Your task to perform on an android device: Open CNN.com Image 0: 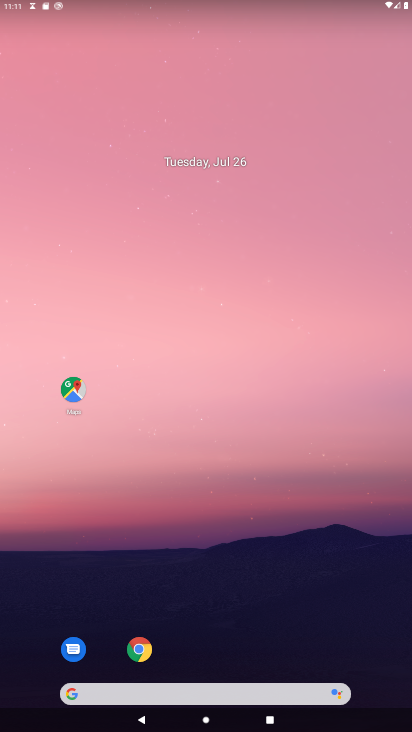
Step 0: click (144, 653)
Your task to perform on an android device: Open CNN.com Image 1: 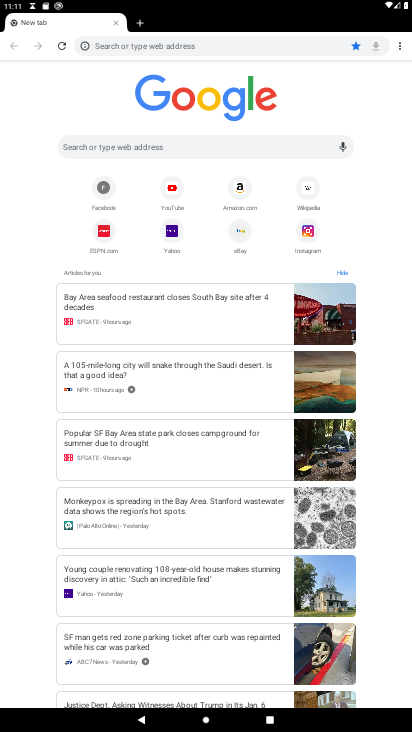
Step 1: click (250, 154)
Your task to perform on an android device: Open CNN.com Image 2: 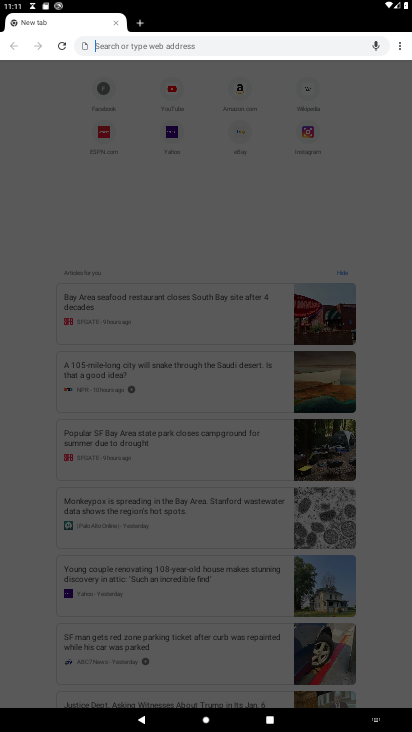
Step 2: type "CNN.com"
Your task to perform on an android device: Open CNN.com Image 3: 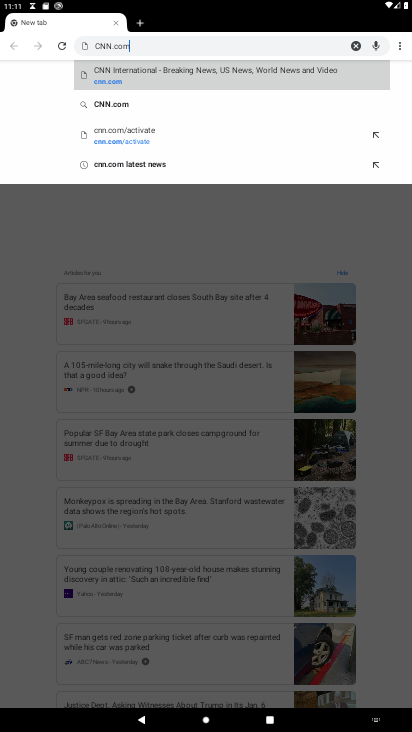
Step 3: click (108, 72)
Your task to perform on an android device: Open CNN.com Image 4: 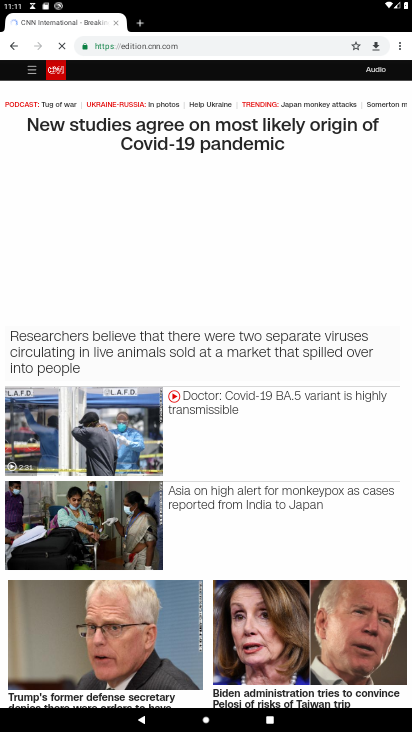
Step 4: task complete